Your task to perform on an android device: add a contact Image 0: 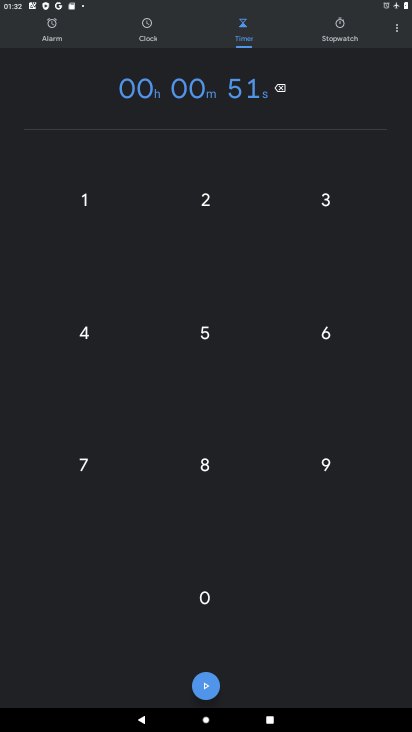
Step 0: press home button
Your task to perform on an android device: add a contact Image 1: 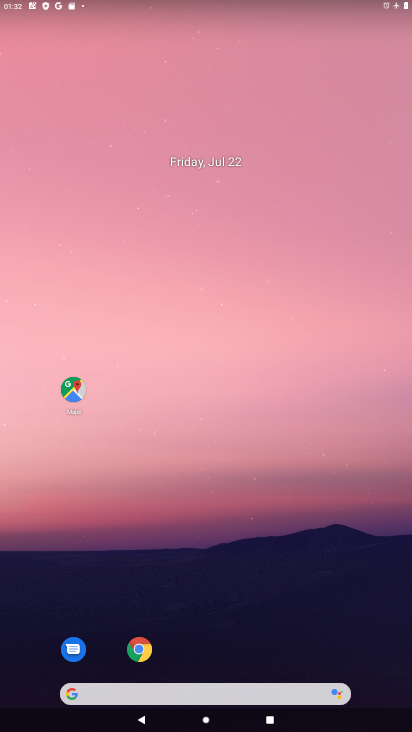
Step 1: drag from (303, 654) to (282, 68)
Your task to perform on an android device: add a contact Image 2: 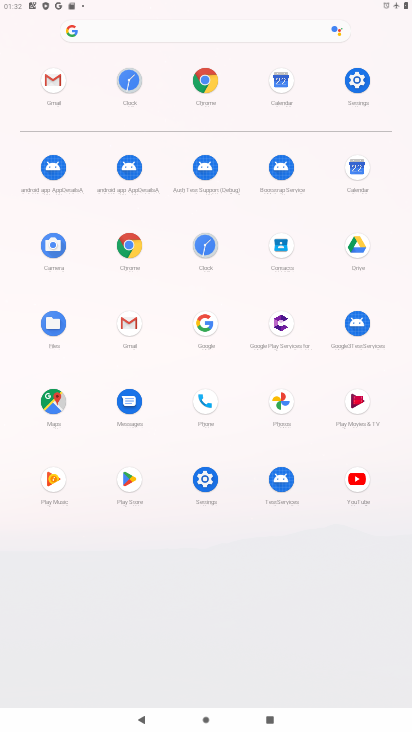
Step 2: click (283, 248)
Your task to perform on an android device: add a contact Image 3: 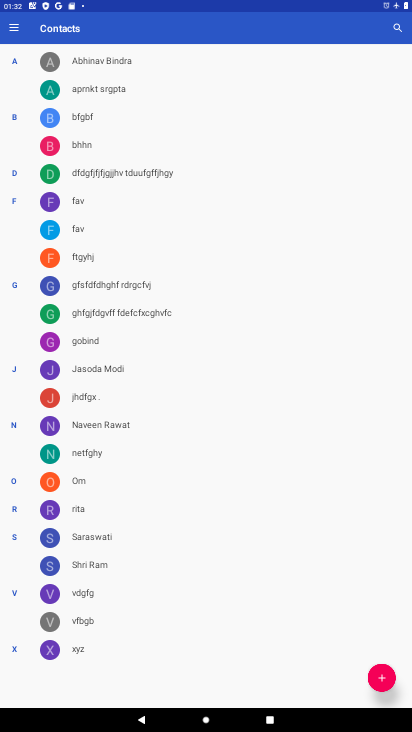
Step 3: click (391, 674)
Your task to perform on an android device: add a contact Image 4: 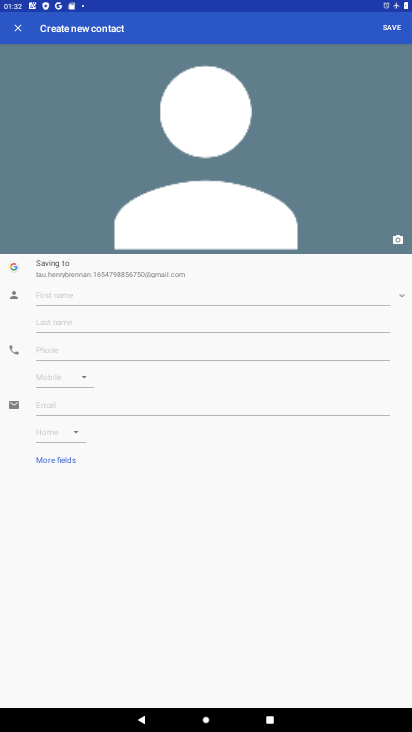
Step 4: click (175, 302)
Your task to perform on an android device: add a contact Image 5: 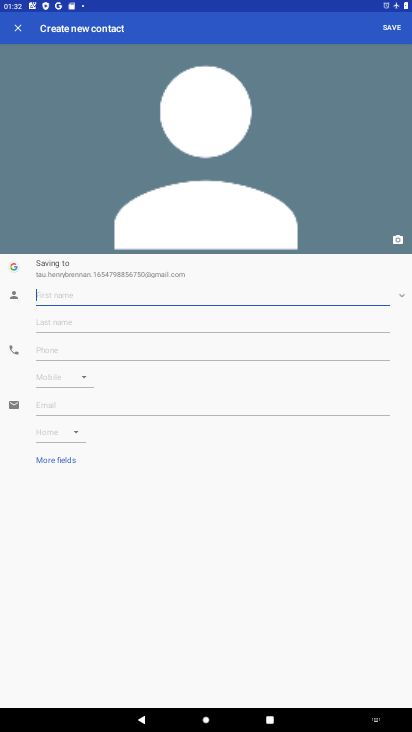
Step 5: type "jopom"
Your task to perform on an android device: add a contact Image 6: 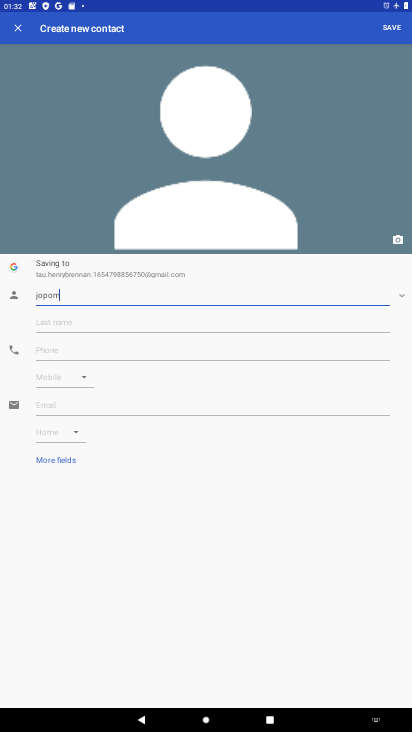
Step 6: type ""
Your task to perform on an android device: add a contact Image 7: 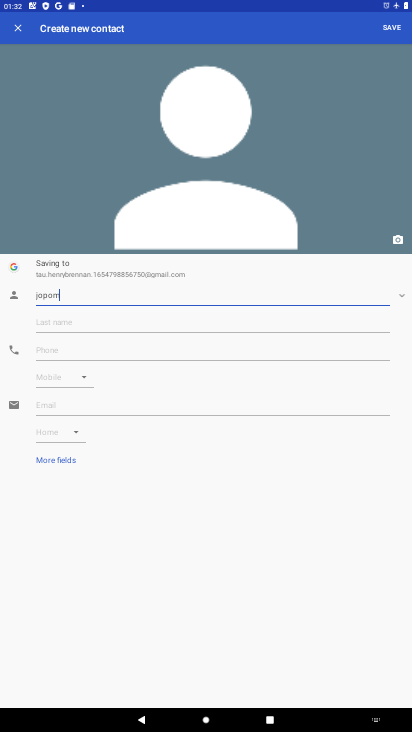
Step 7: click (397, 30)
Your task to perform on an android device: add a contact Image 8: 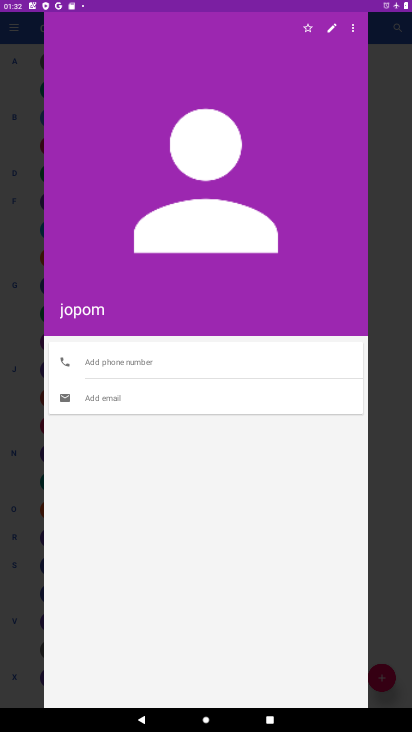
Step 8: task complete